Your task to perform on an android device: Open Wikipedia Image 0: 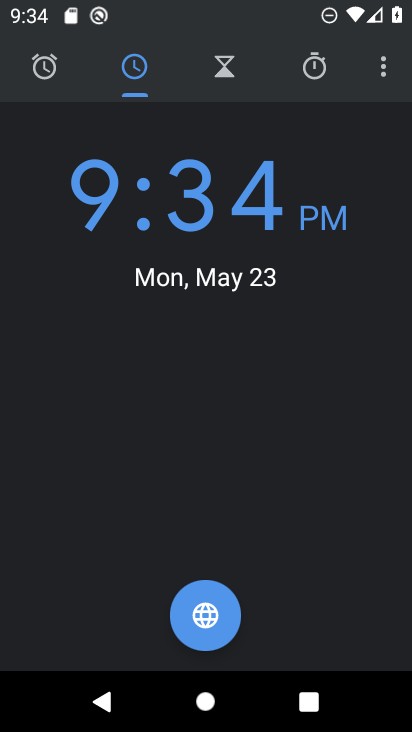
Step 0: press home button
Your task to perform on an android device: Open Wikipedia Image 1: 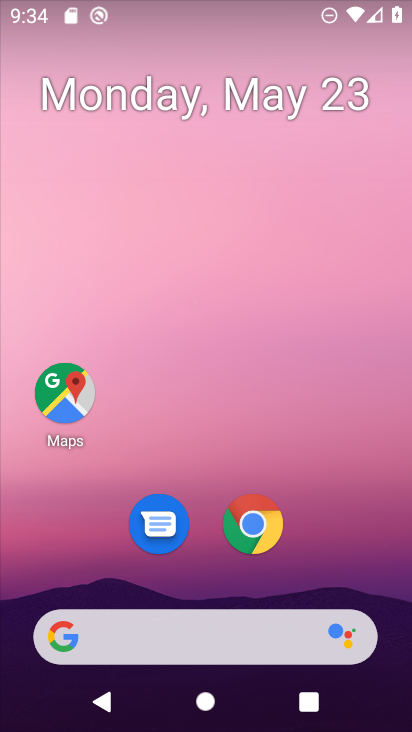
Step 1: click (244, 536)
Your task to perform on an android device: Open Wikipedia Image 2: 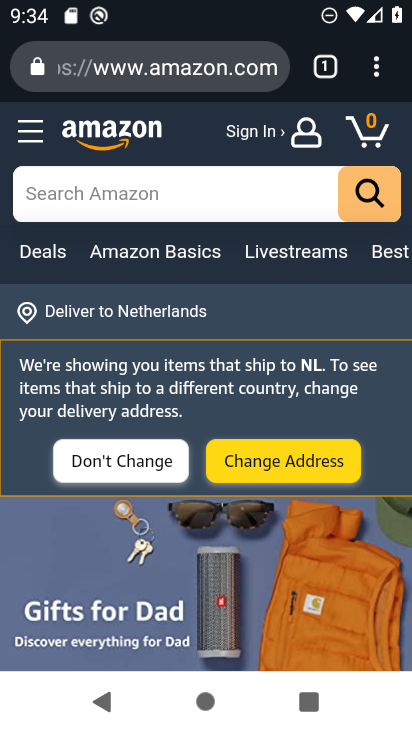
Step 2: click (374, 76)
Your task to perform on an android device: Open Wikipedia Image 3: 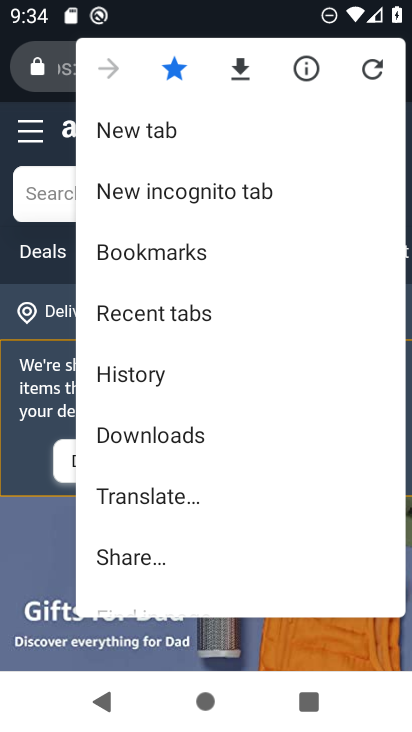
Step 3: click (271, 122)
Your task to perform on an android device: Open Wikipedia Image 4: 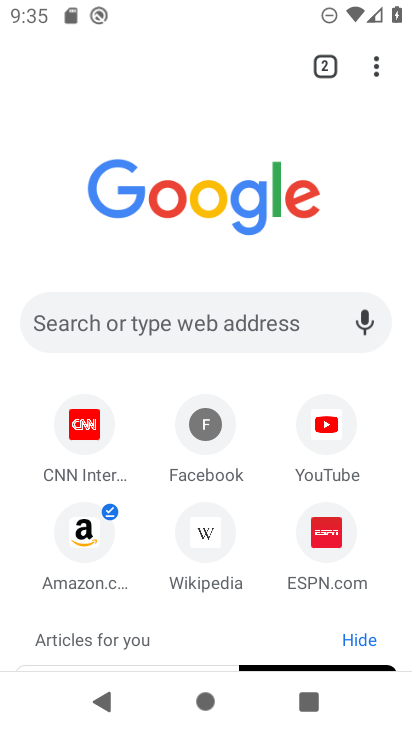
Step 4: click (201, 534)
Your task to perform on an android device: Open Wikipedia Image 5: 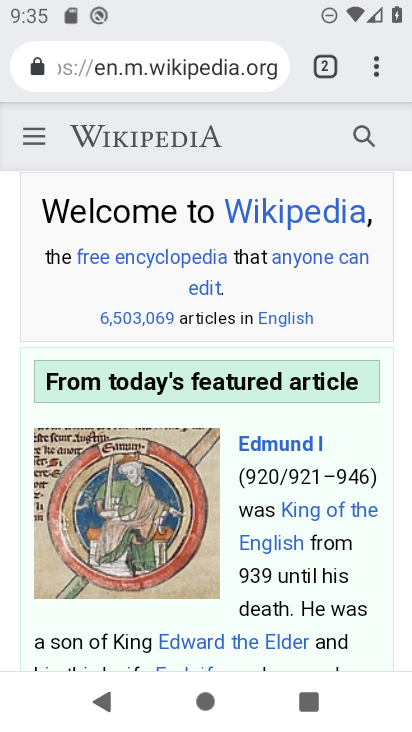
Step 5: task complete